Your task to perform on an android device: change timer sound Image 0: 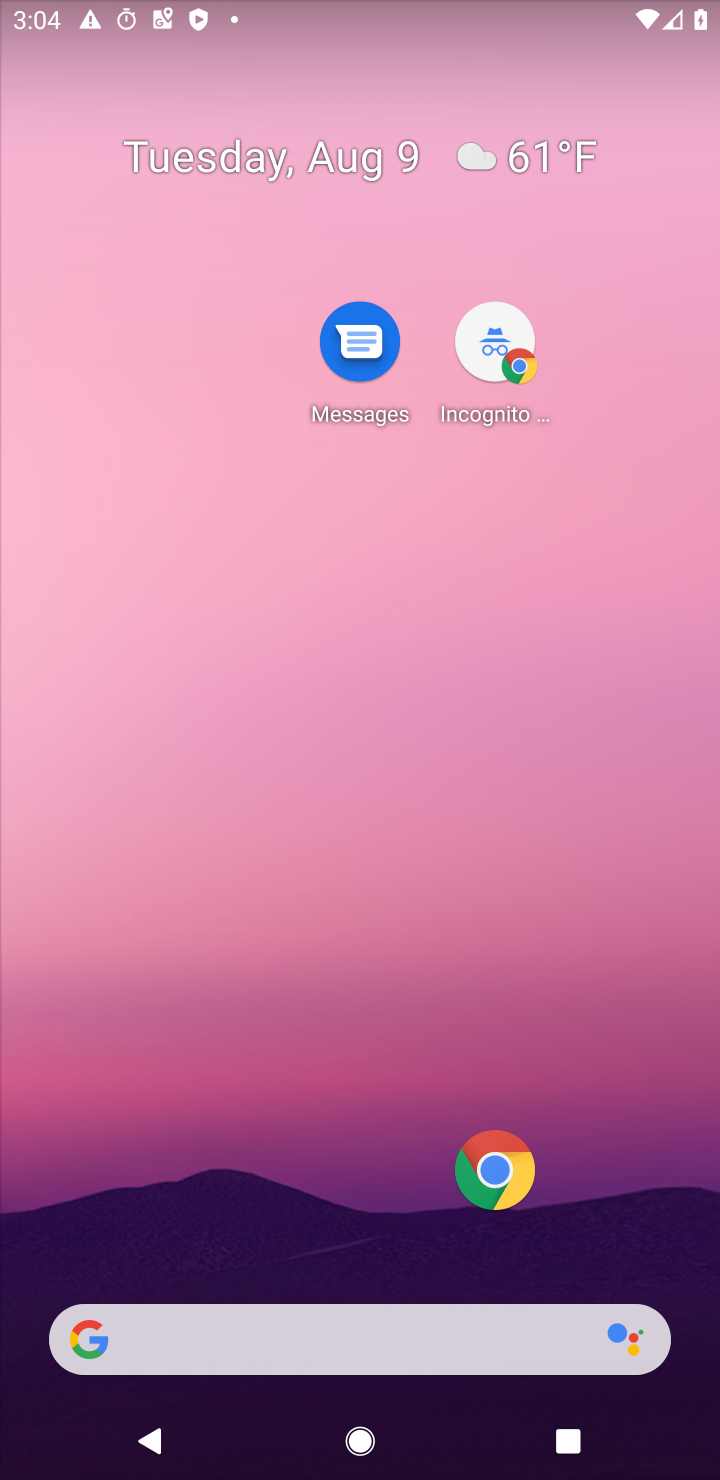
Step 0: drag from (281, 1239) to (321, 3)
Your task to perform on an android device: change timer sound Image 1: 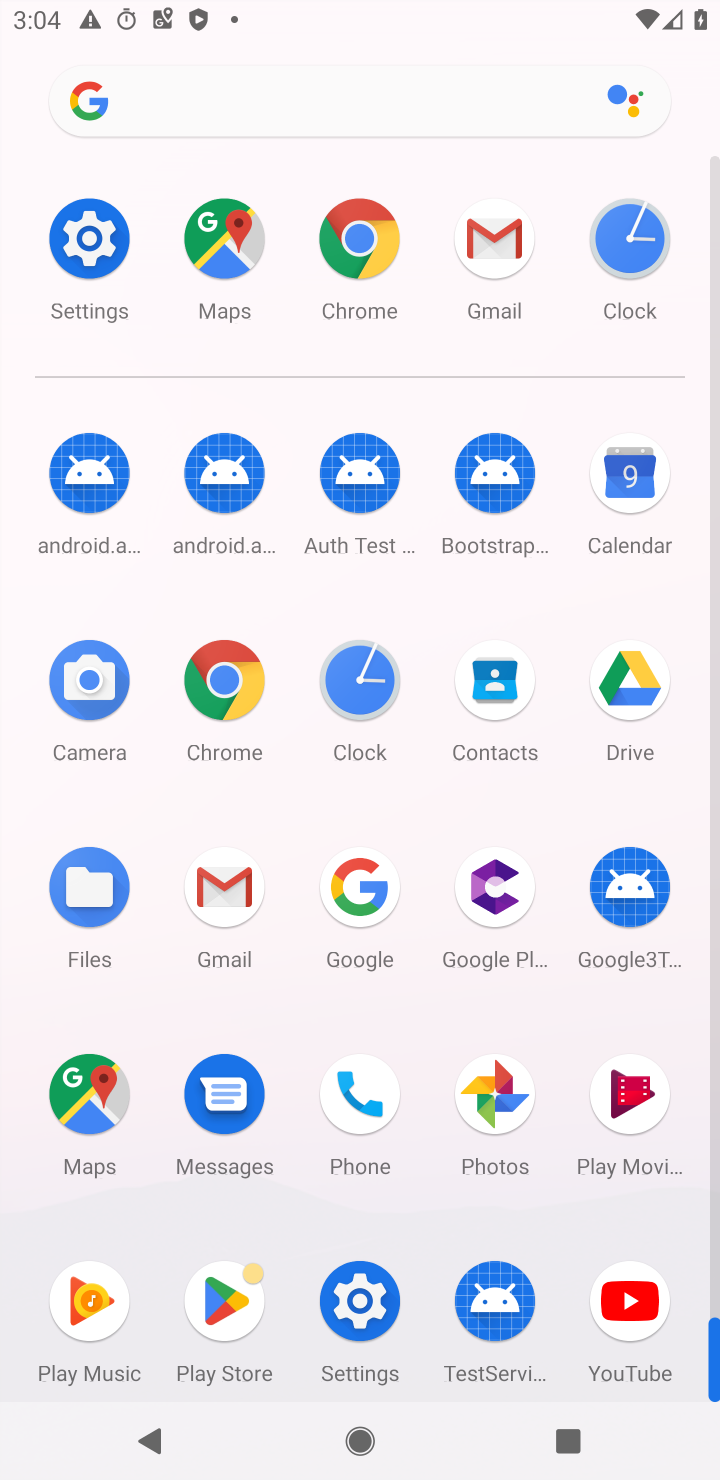
Step 1: click (380, 1290)
Your task to perform on an android device: change timer sound Image 2: 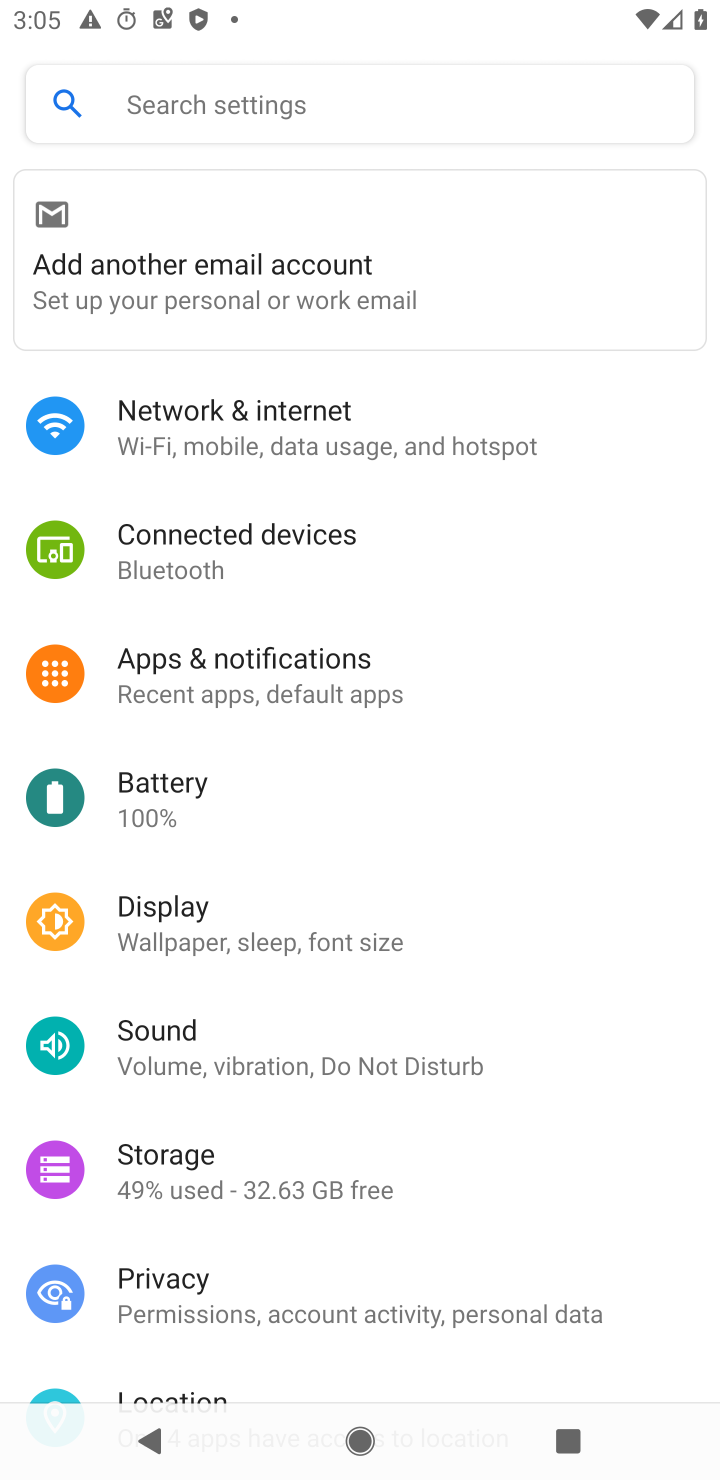
Step 2: press home button
Your task to perform on an android device: change timer sound Image 3: 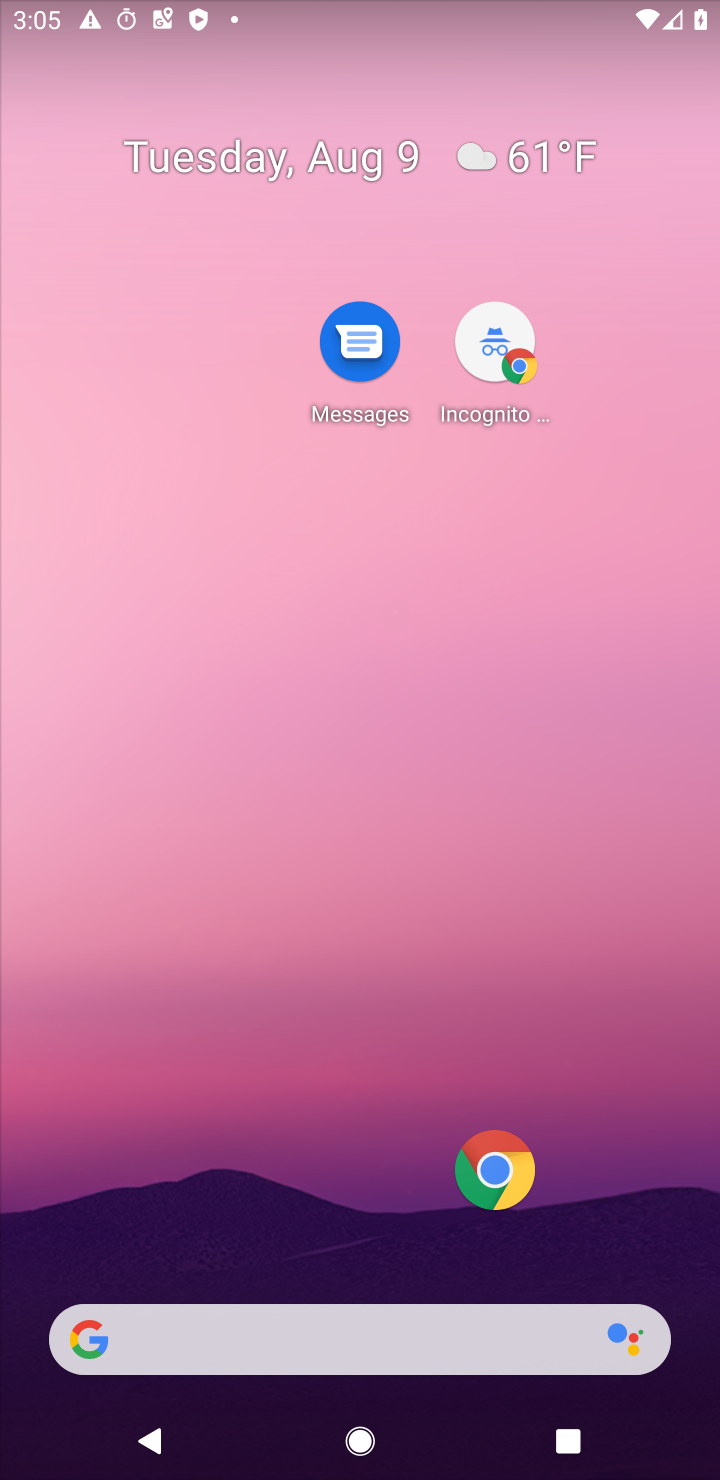
Step 3: drag from (385, 959) to (614, 2)
Your task to perform on an android device: change timer sound Image 4: 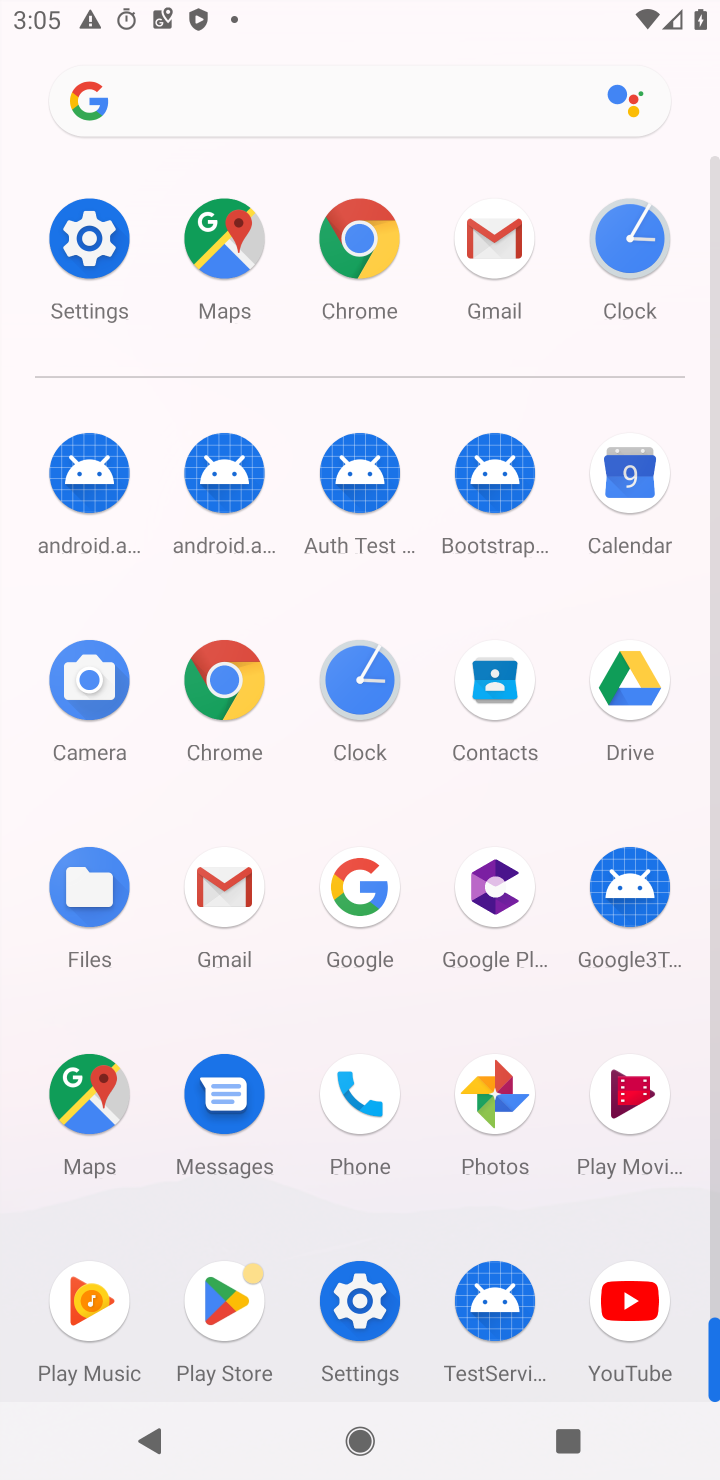
Step 4: click (365, 677)
Your task to perform on an android device: change timer sound Image 5: 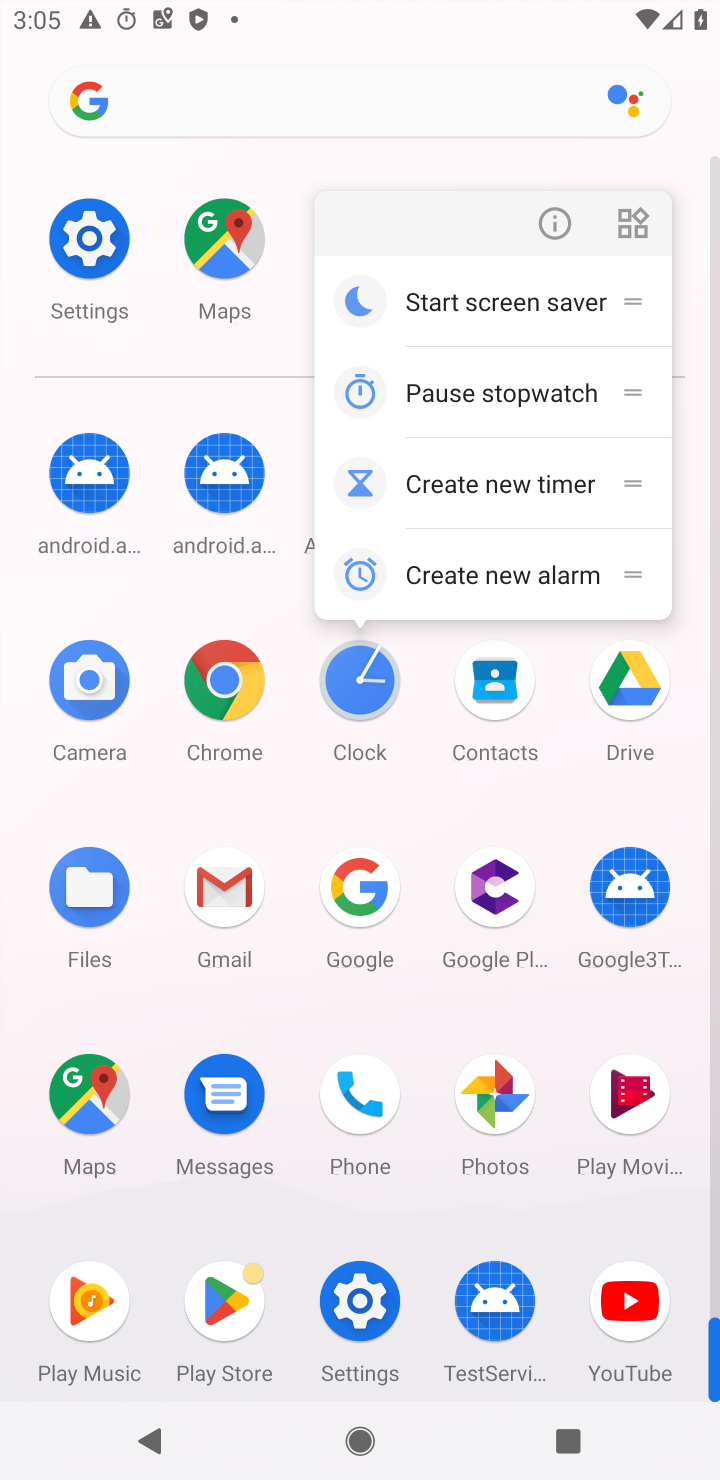
Step 5: click (338, 681)
Your task to perform on an android device: change timer sound Image 6: 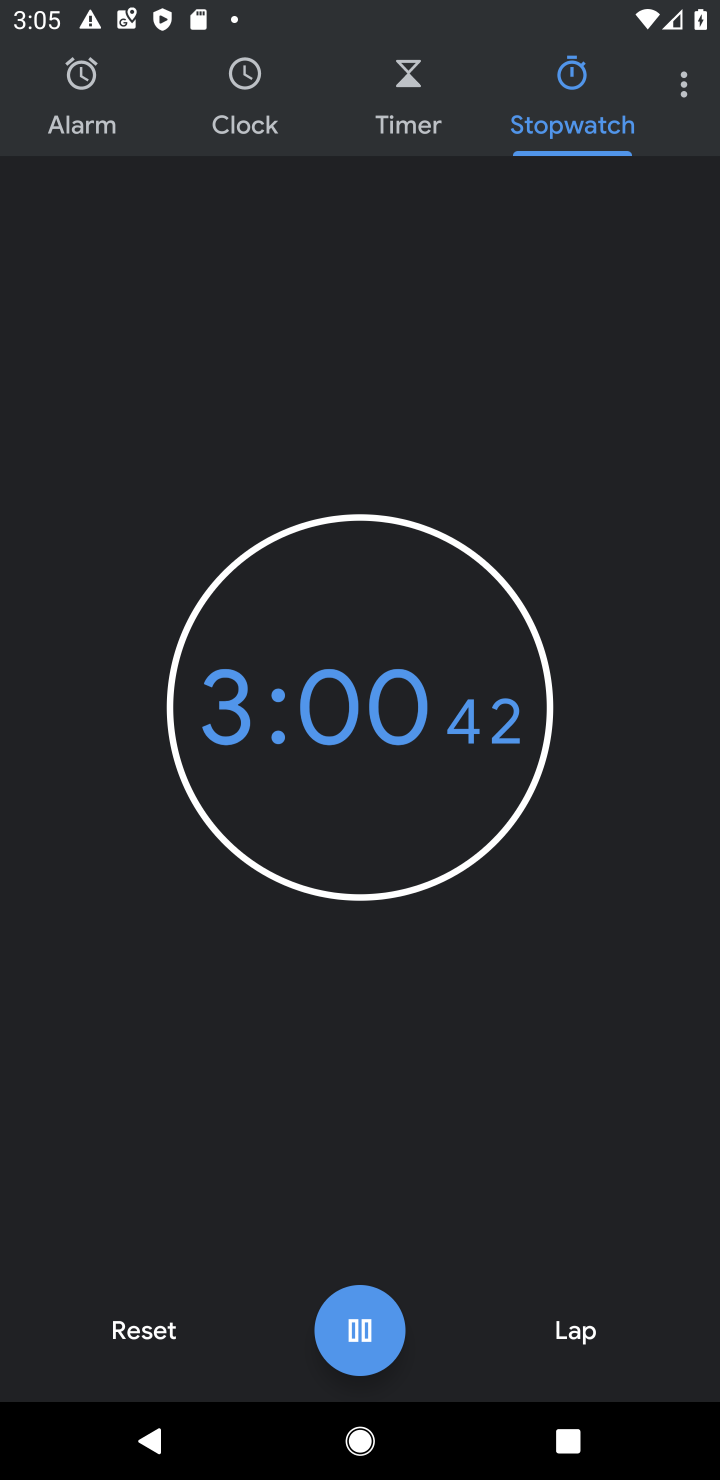
Step 6: click (698, 77)
Your task to perform on an android device: change timer sound Image 7: 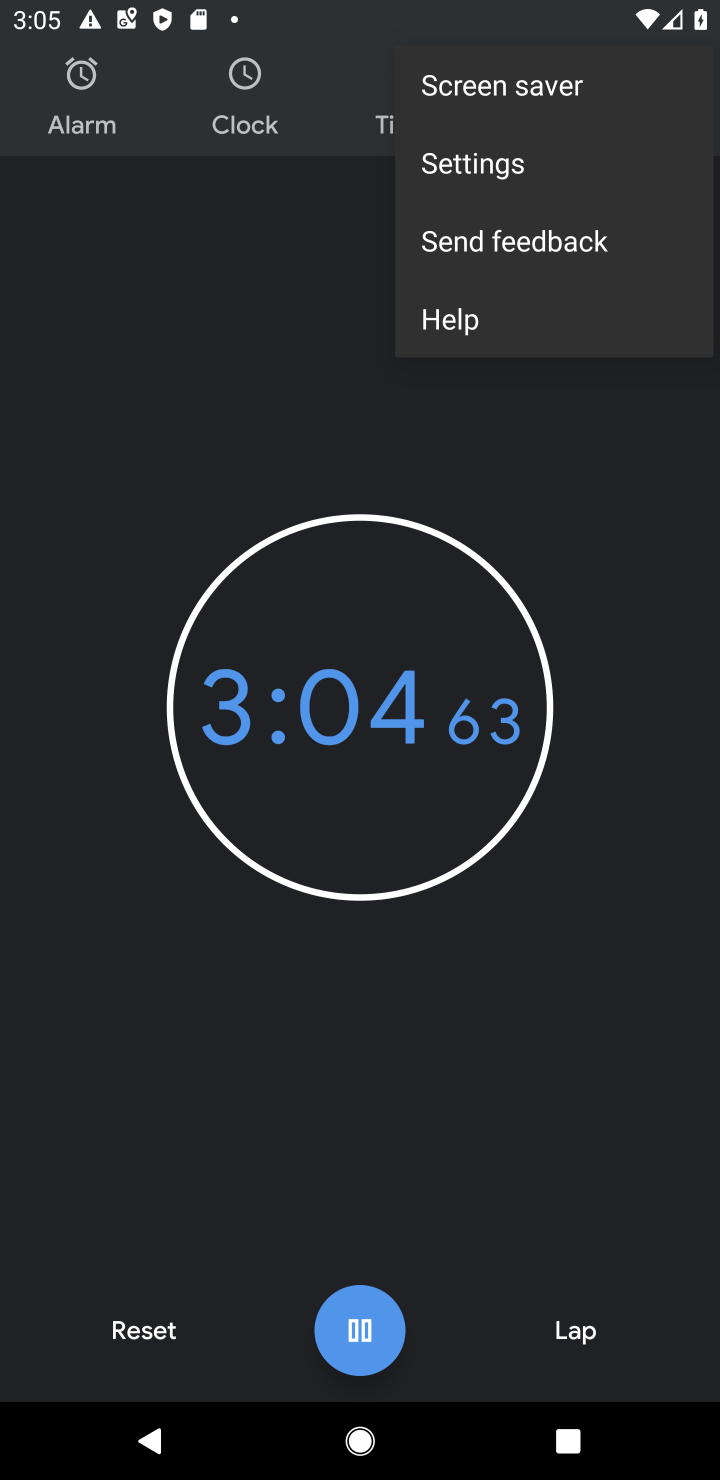
Step 7: click (466, 176)
Your task to perform on an android device: change timer sound Image 8: 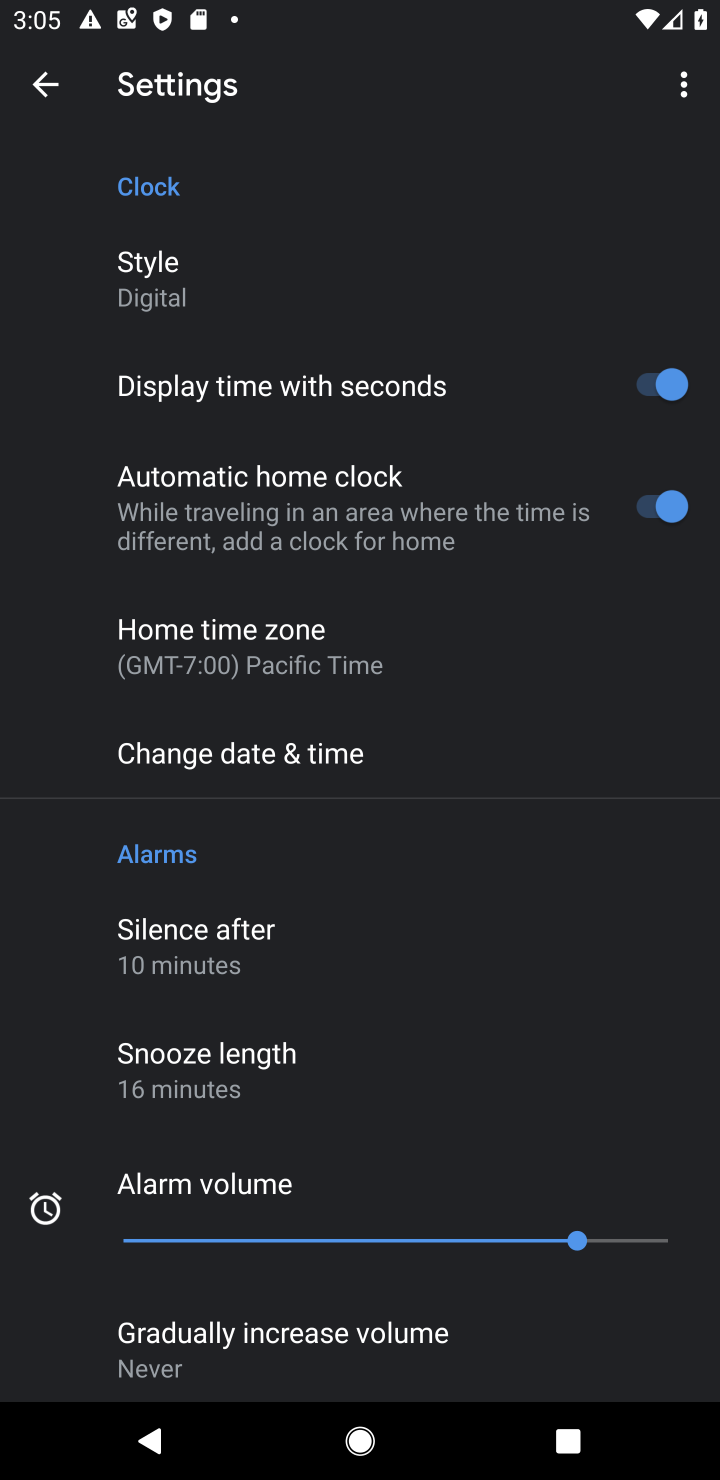
Step 8: drag from (304, 1083) to (369, 499)
Your task to perform on an android device: change timer sound Image 9: 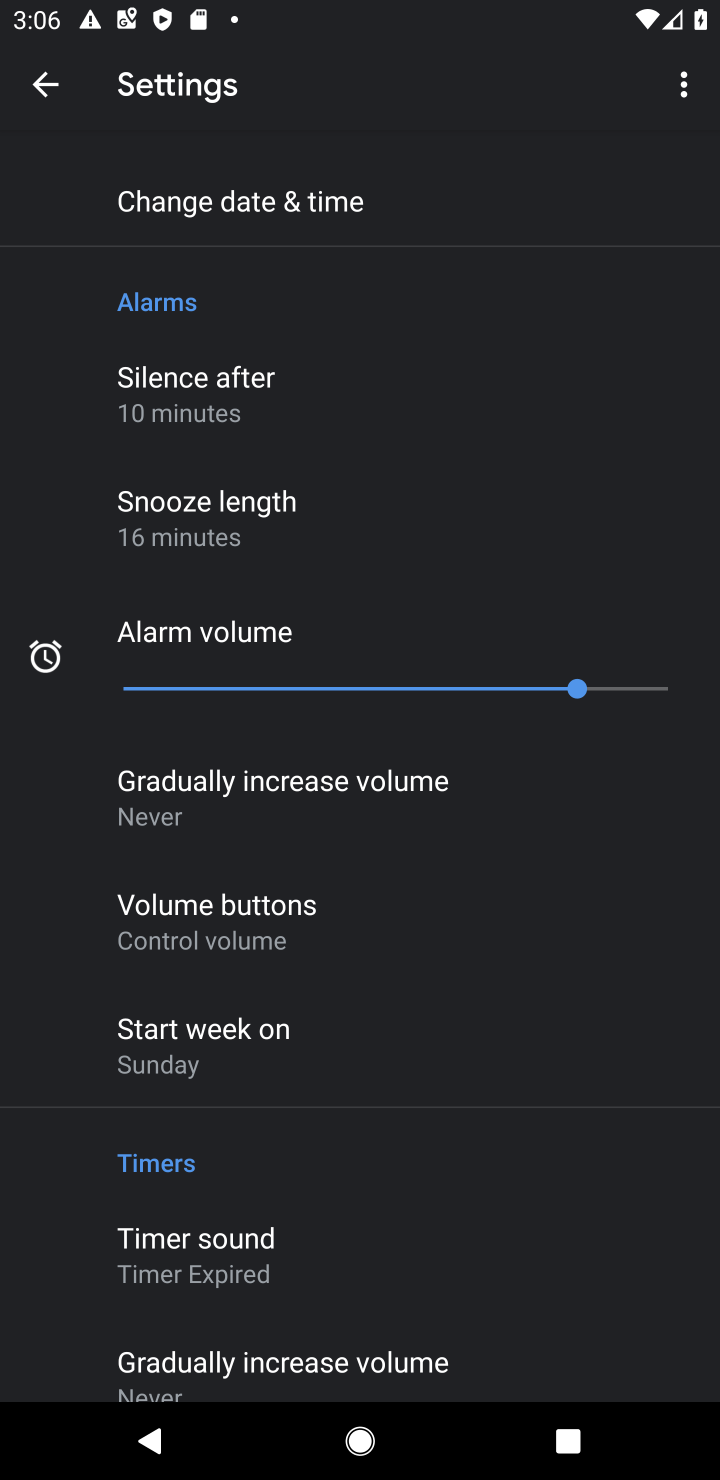
Step 9: click (272, 1251)
Your task to perform on an android device: change timer sound Image 10: 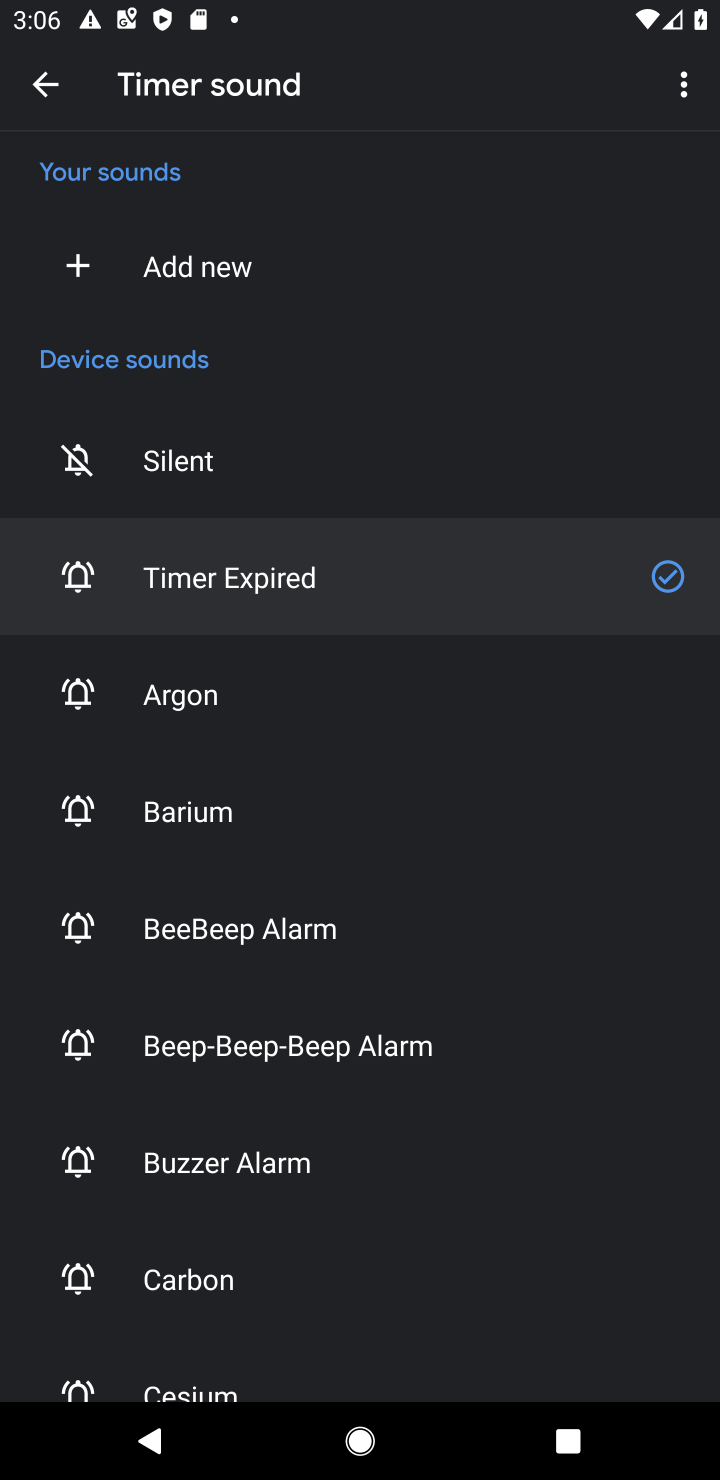
Step 10: click (236, 934)
Your task to perform on an android device: change timer sound Image 11: 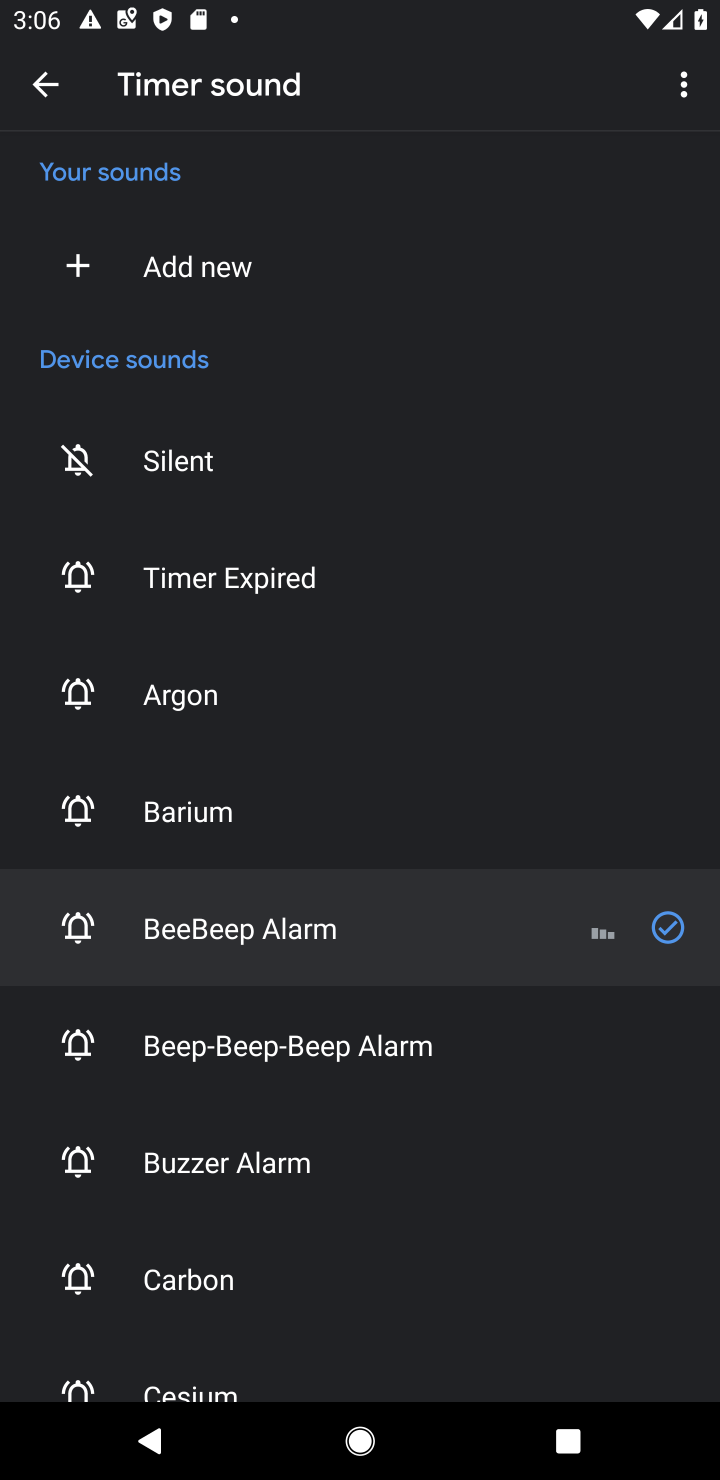
Step 11: task complete